Your task to perform on an android device: Turn on the flashlight Image 0: 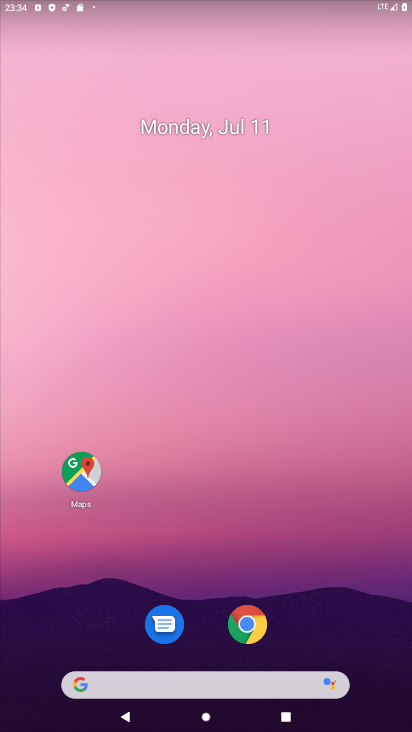
Step 0: drag from (198, 618) to (186, 301)
Your task to perform on an android device: Turn on the flashlight Image 1: 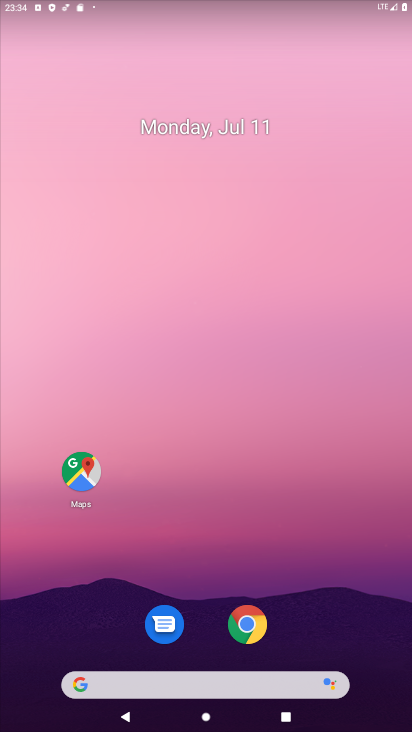
Step 1: drag from (214, 599) to (201, 223)
Your task to perform on an android device: Turn on the flashlight Image 2: 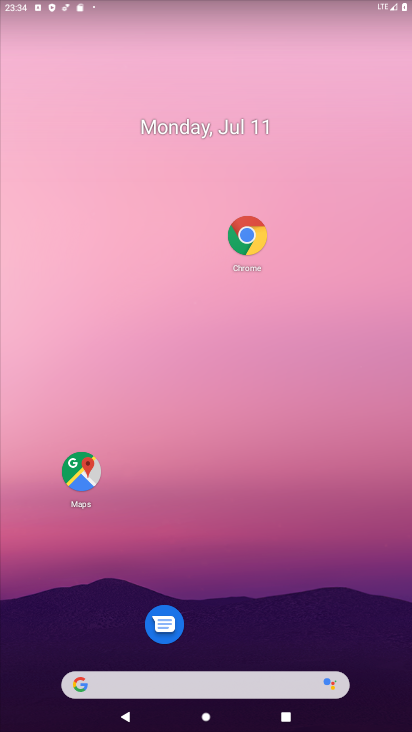
Step 2: drag from (199, 592) to (174, 264)
Your task to perform on an android device: Turn on the flashlight Image 3: 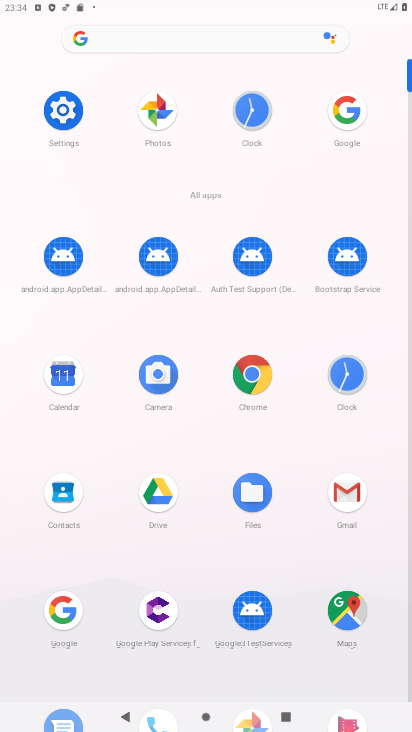
Step 3: click (67, 116)
Your task to perform on an android device: Turn on the flashlight Image 4: 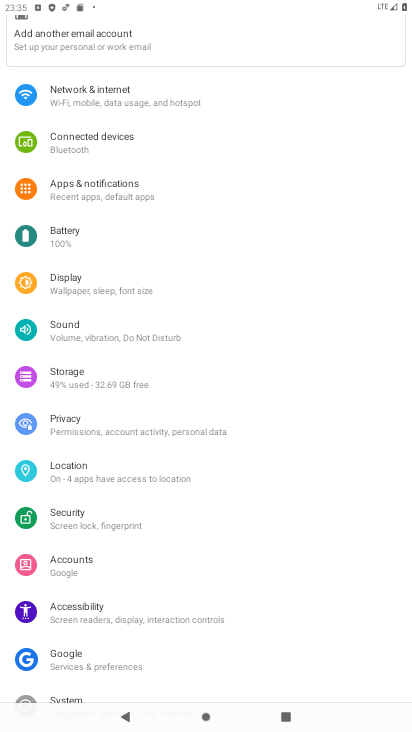
Step 4: task complete